Your task to perform on an android device: See recent photos Image 0: 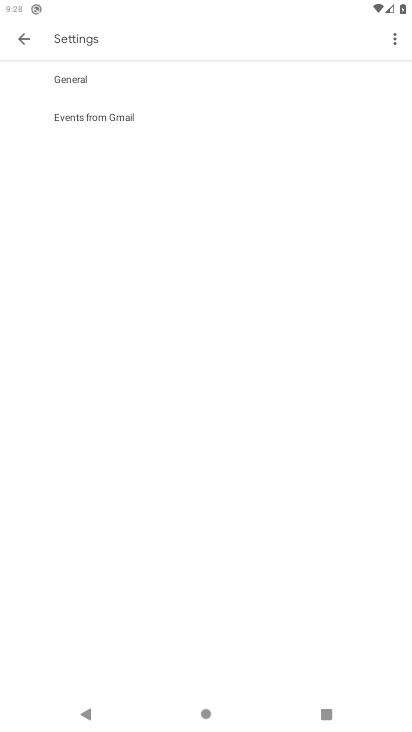
Step 0: press home button
Your task to perform on an android device: See recent photos Image 1: 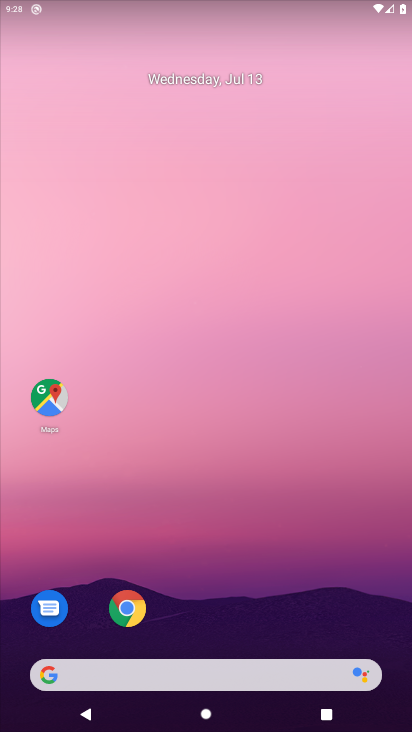
Step 1: drag from (30, 710) to (162, 95)
Your task to perform on an android device: See recent photos Image 2: 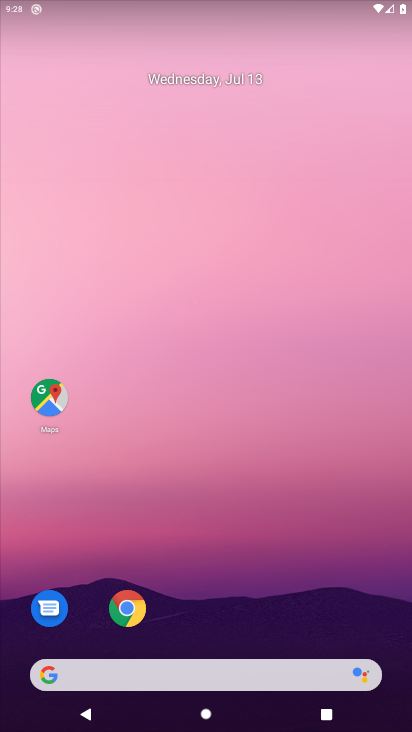
Step 2: drag from (85, 505) to (192, 70)
Your task to perform on an android device: See recent photos Image 3: 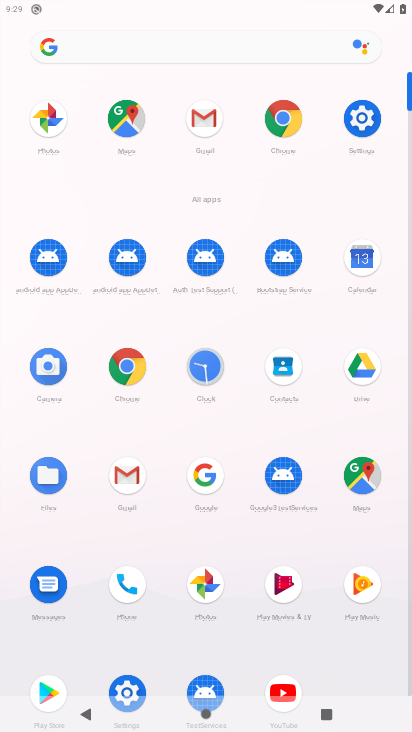
Step 3: click (207, 577)
Your task to perform on an android device: See recent photos Image 4: 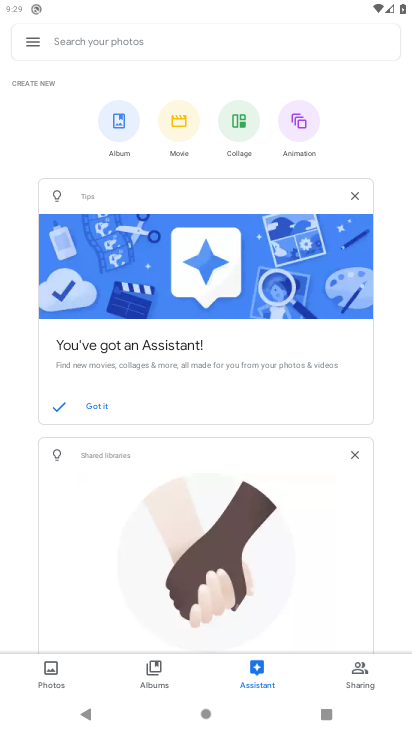
Step 4: click (39, 689)
Your task to perform on an android device: See recent photos Image 5: 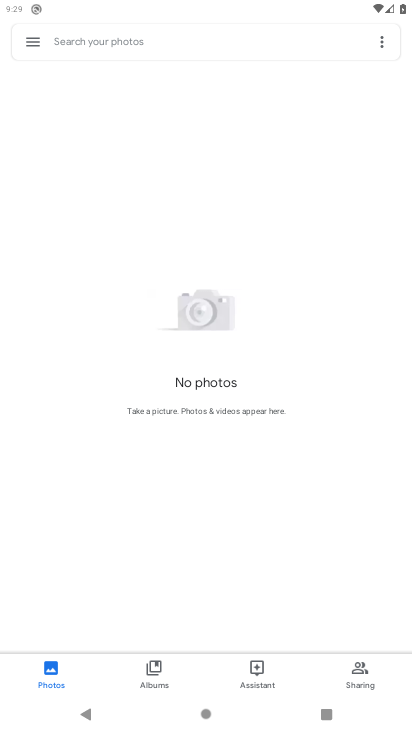
Step 5: task complete